Your task to perform on an android device: find which apps use the phone's location Image 0: 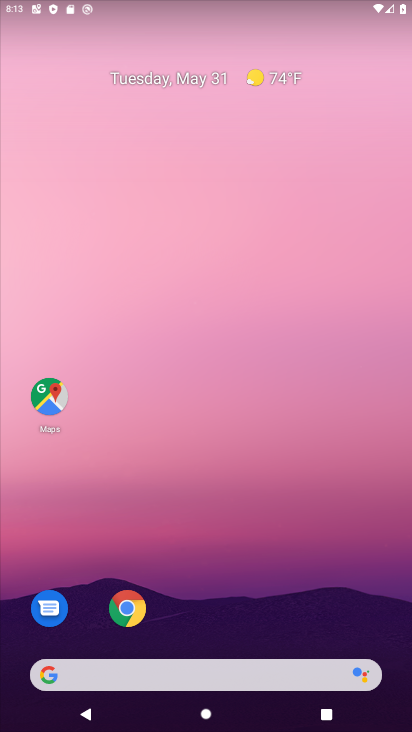
Step 0: drag from (224, 657) to (191, 308)
Your task to perform on an android device: find which apps use the phone's location Image 1: 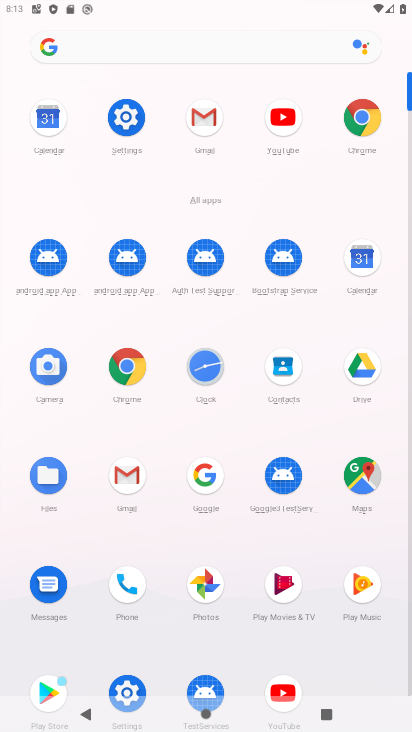
Step 1: click (133, 130)
Your task to perform on an android device: find which apps use the phone's location Image 2: 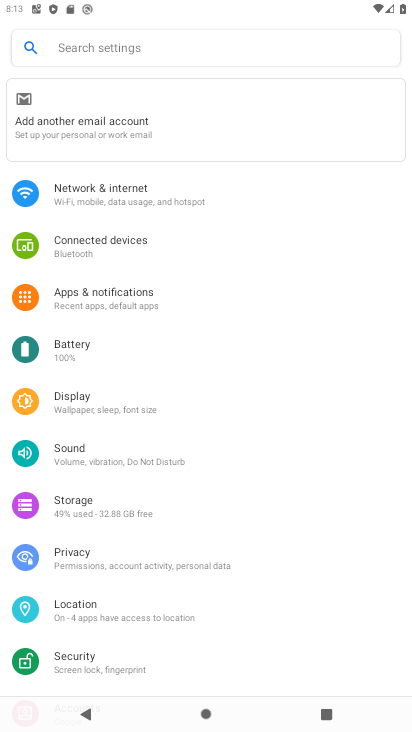
Step 2: click (45, 325)
Your task to perform on an android device: find which apps use the phone's location Image 3: 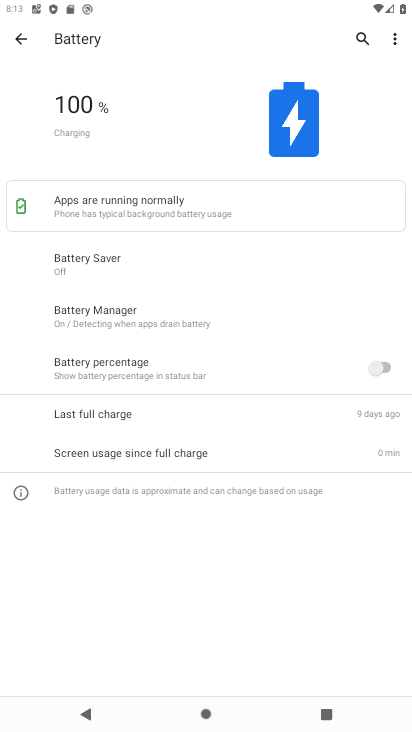
Step 3: click (24, 47)
Your task to perform on an android device: find which apps use the phone's location Image 4: 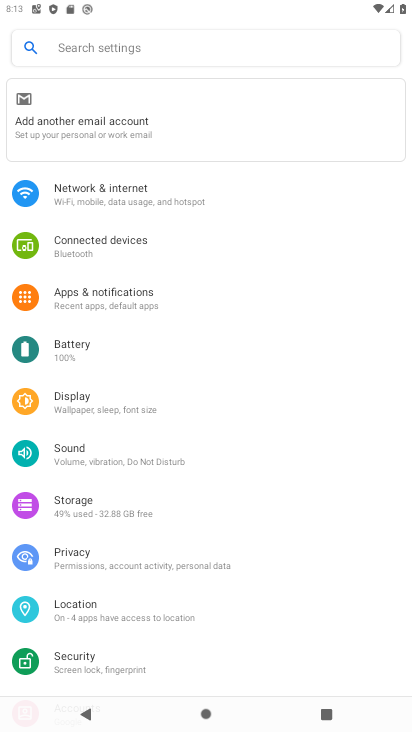
Step 4: click (101, 304)
Your task to perform on an android device: find which apps use the phone's location Image 5: 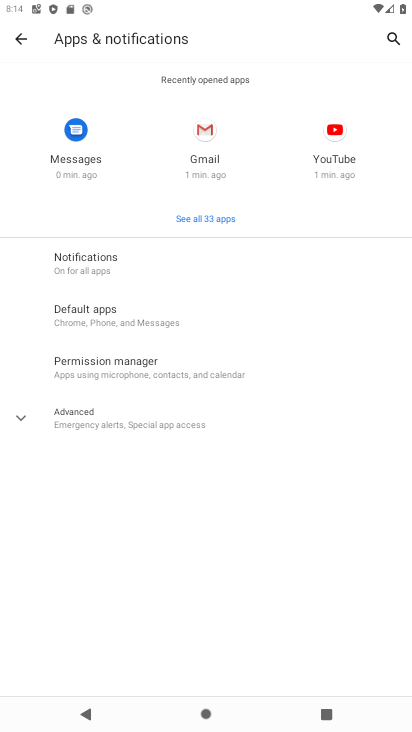
Step 5: click (24, 39)
Your task to perform on an android device: find which apps use the phone's location Image 6: 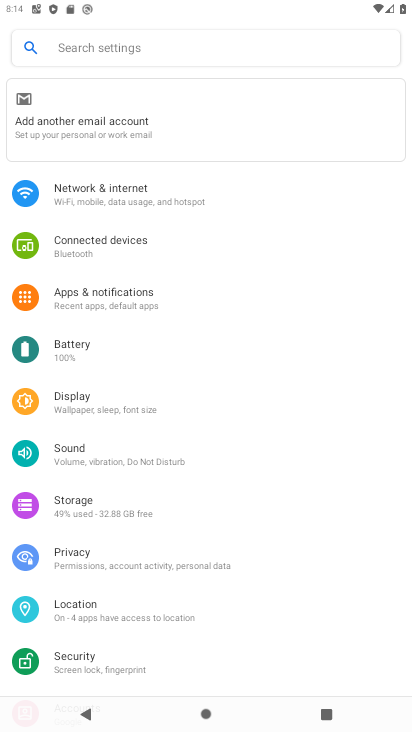
Step 6: click (58, 602)
Your task to perform on an android device: find which apps use the phone's location Image 7: 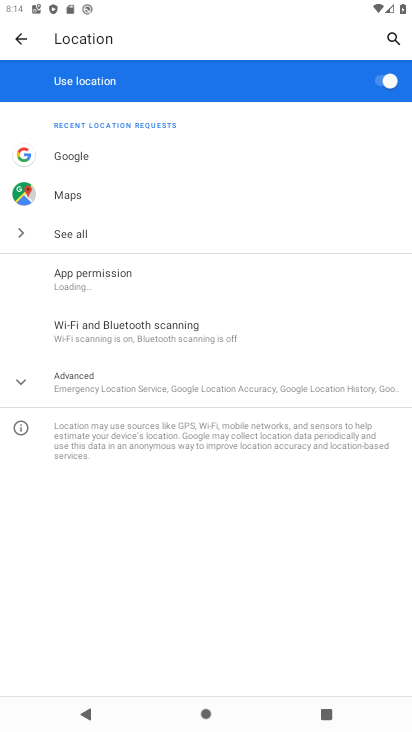
Step 7: click (109, 289)
Your task to perform on an android device: find which apps use the phone's location Image 8: 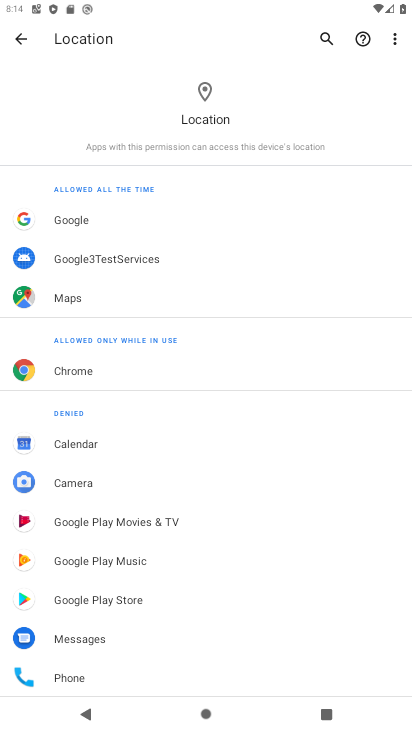
Step 8: task complete